Your task to perform on an android device: open a bookmark in the chrome app Image 0: 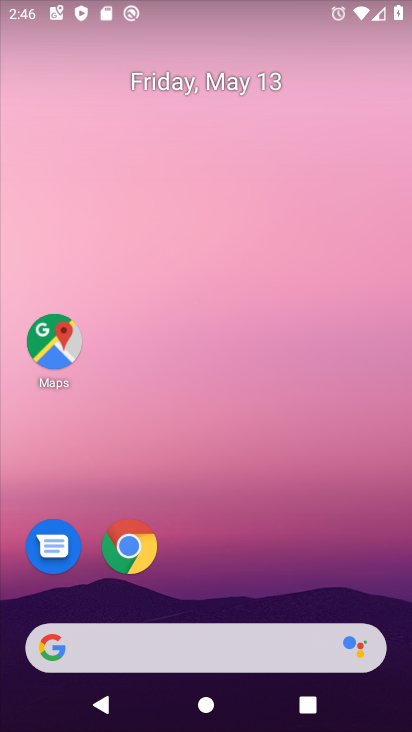
Step 0: click (135, 548)
Your task to perform on an android device: open a bookmark in the chrome app Image 1: 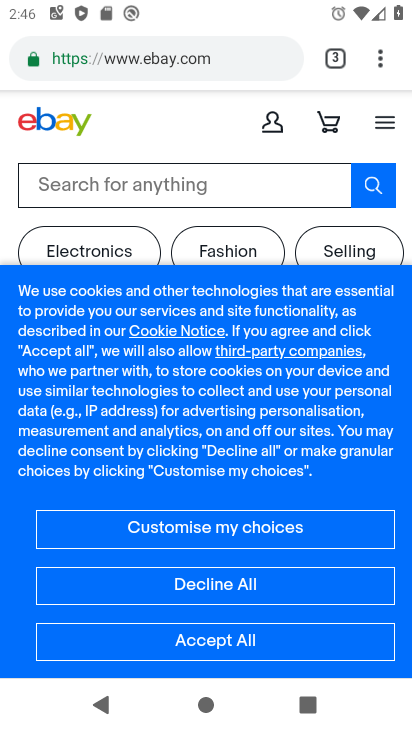
Step 1: task complete